Your task to perform on an android device: open sync settings in chrome Image 0: 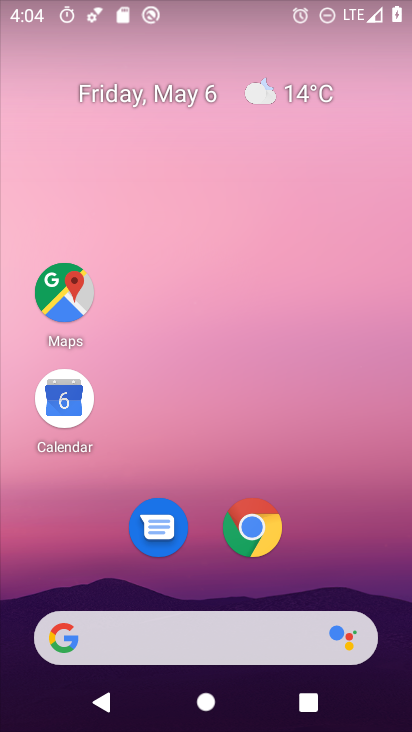
Step 0: click (252, 532)
Your task to perform on an android device: open sync settings in chrome Image 1: 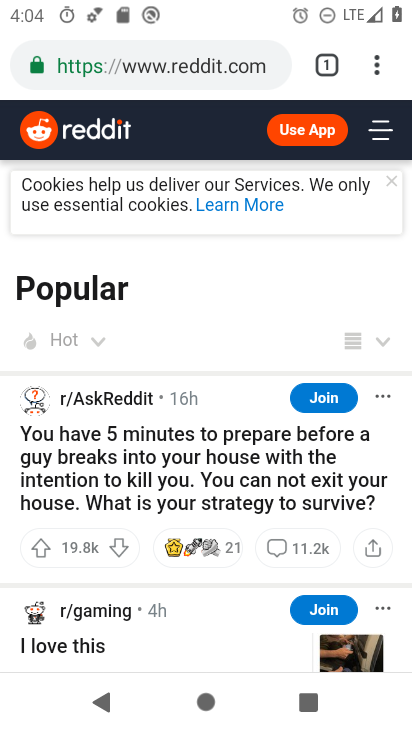
Step 1: drag from (376, 62) to (209, 576)
Your task to perform on an android device: open sync settings in chrome Image 2: 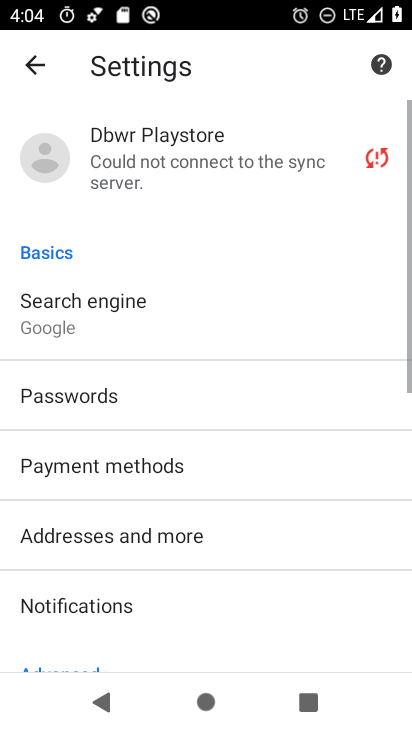
Step 2: drag from (203, 526) to (271, 118)
Your task to perform on an android device: open sync settings in chrome Image 3: 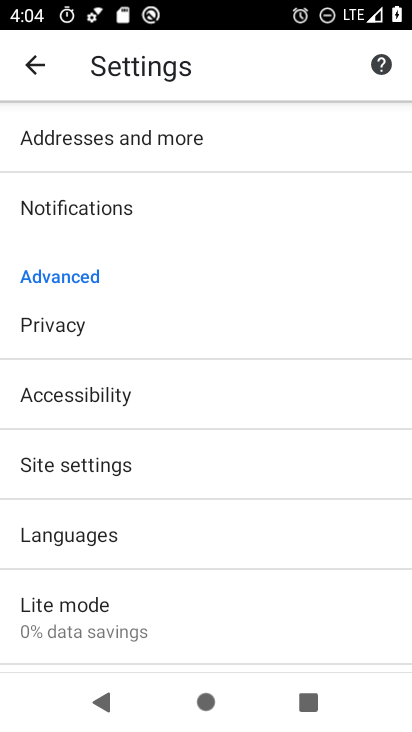
Step 3: drag from (205, 171) to (231, 670)
Your task to perform on an android device: open sync settings in chrome Image 4: 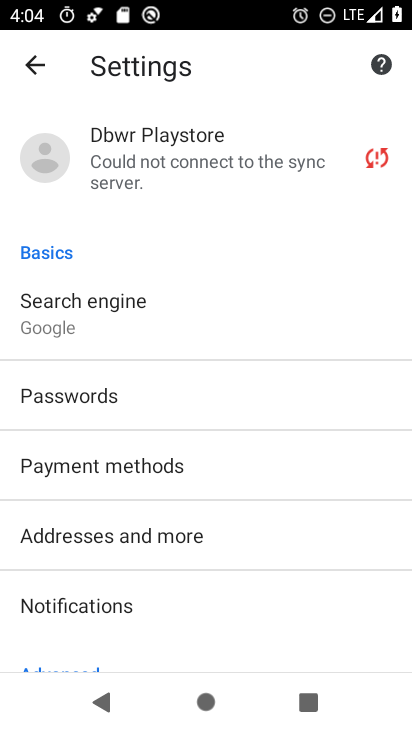
Step 4: click (188, 173)
Your task to perform on an android device: open sync settings in chrome Image 5: 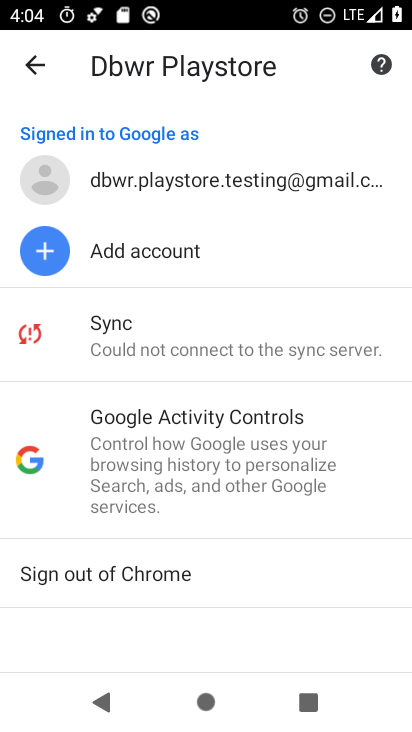
Step 5: click (199, 351)
Your task to perform on an android device: open sync settings in chrome Image 6: 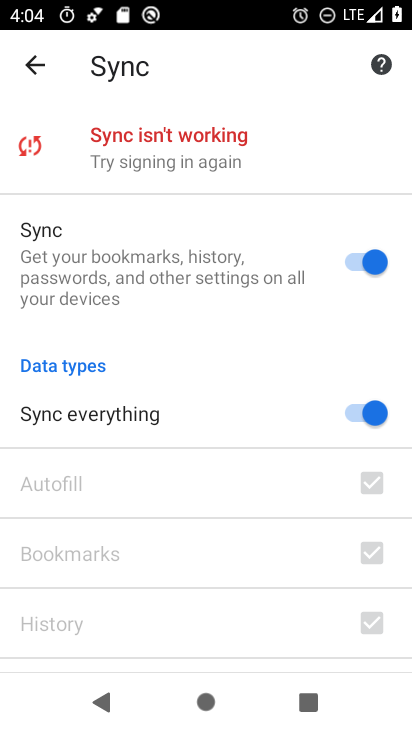
Step 6: task complete